Your task to perform on an android device: Open internet settings Image 0: 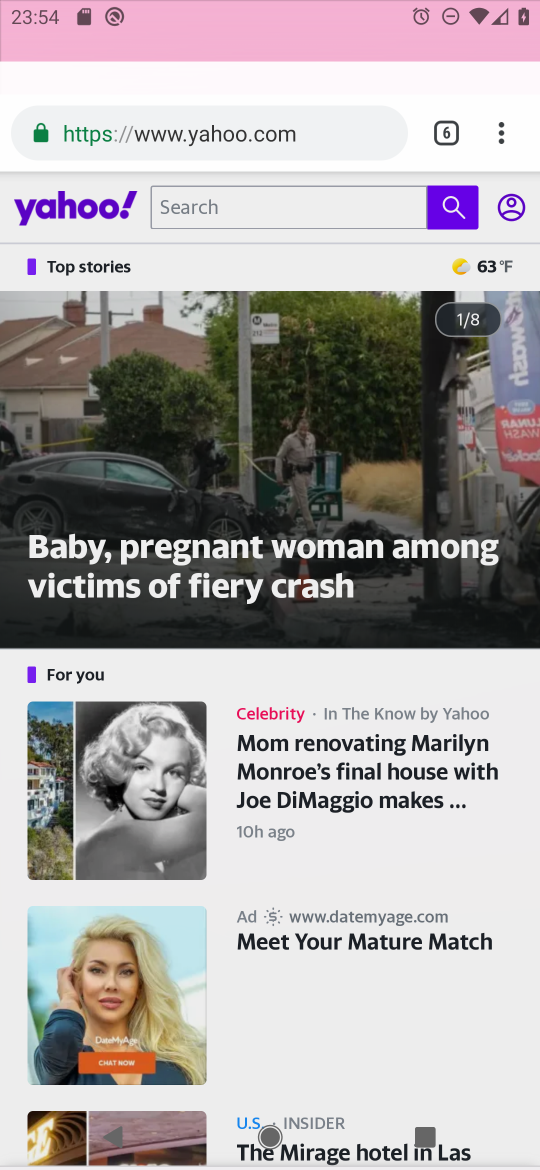
Step 0: press home button
Your task to perform on an android device: Open internet settings Image 1: 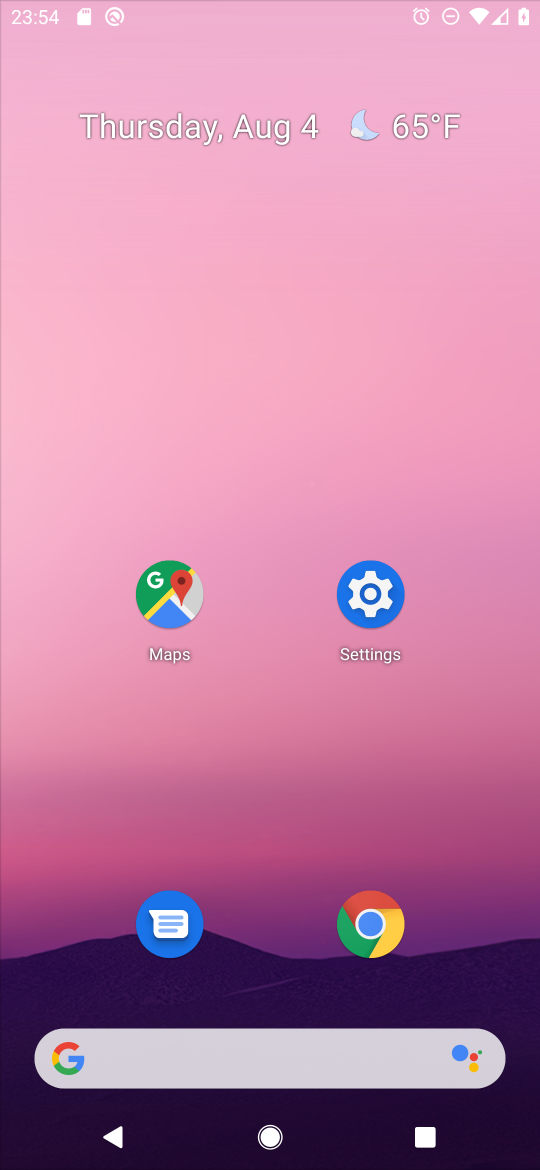
Step 1: press home button
Your task to perform on an android device: Open internet settings Image 2: 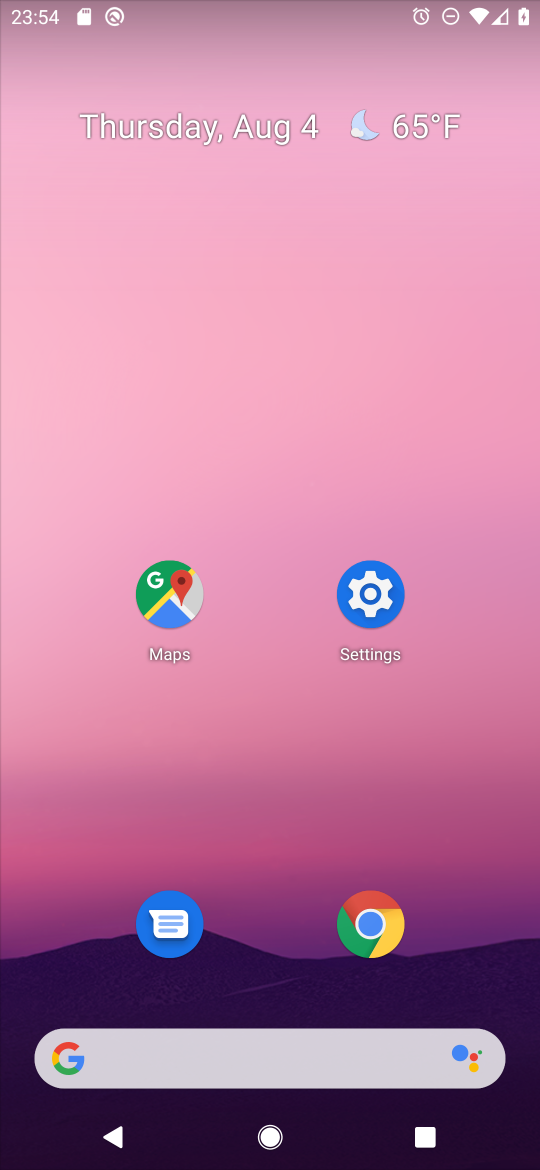
Step 2: drag from (238, 1010) to (488, 79)
Your task to perform on an android device: Open internet settings Image 3: 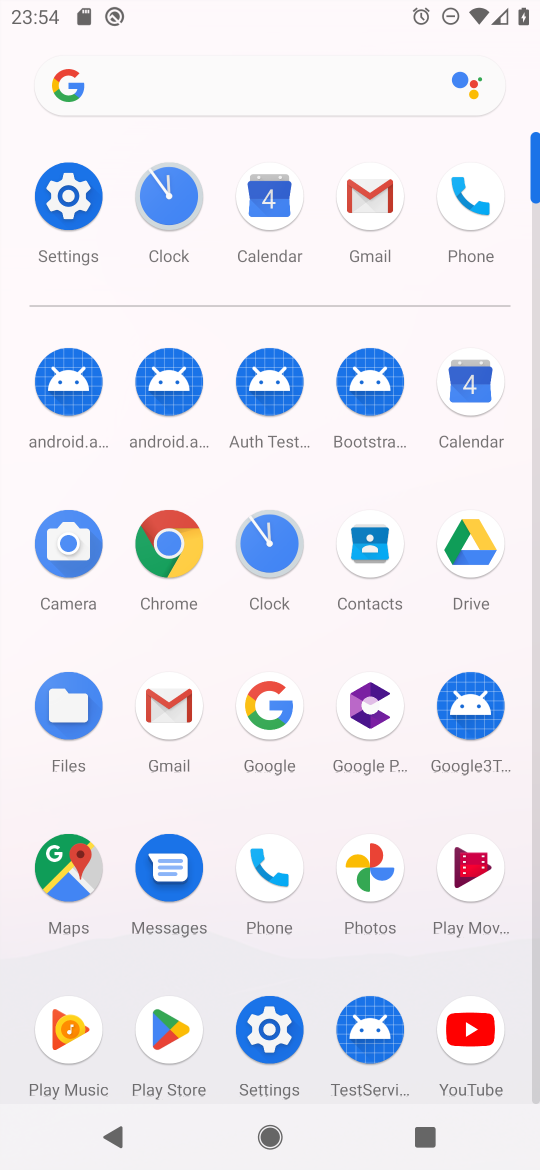
Step 3: click (271, 1042)
Your task to perform on an android device: Open internet settings Image 4: 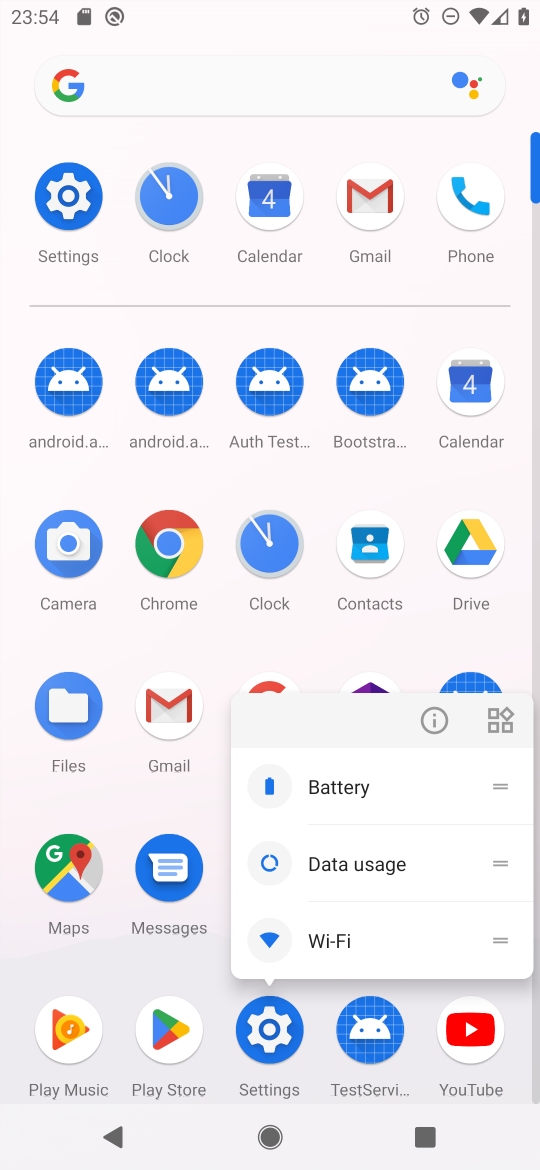
Step 4: click (263, 1042)
Your task to perform on an android device: Open internet settings Image 5: 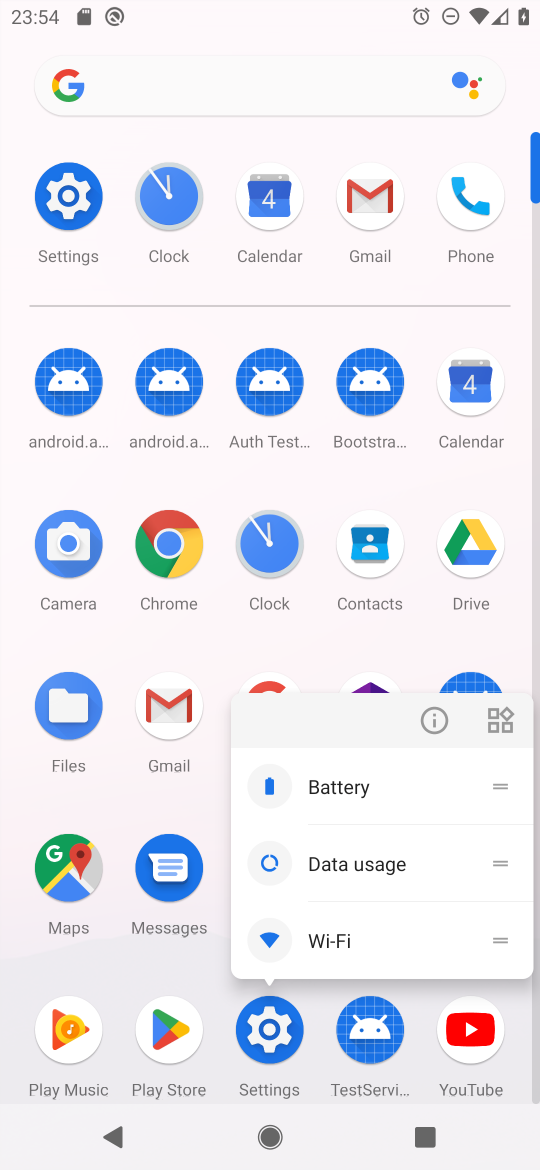
Step 5: click (270, 1034)
Your task to perform on an android device: Open internet settings Image 6: 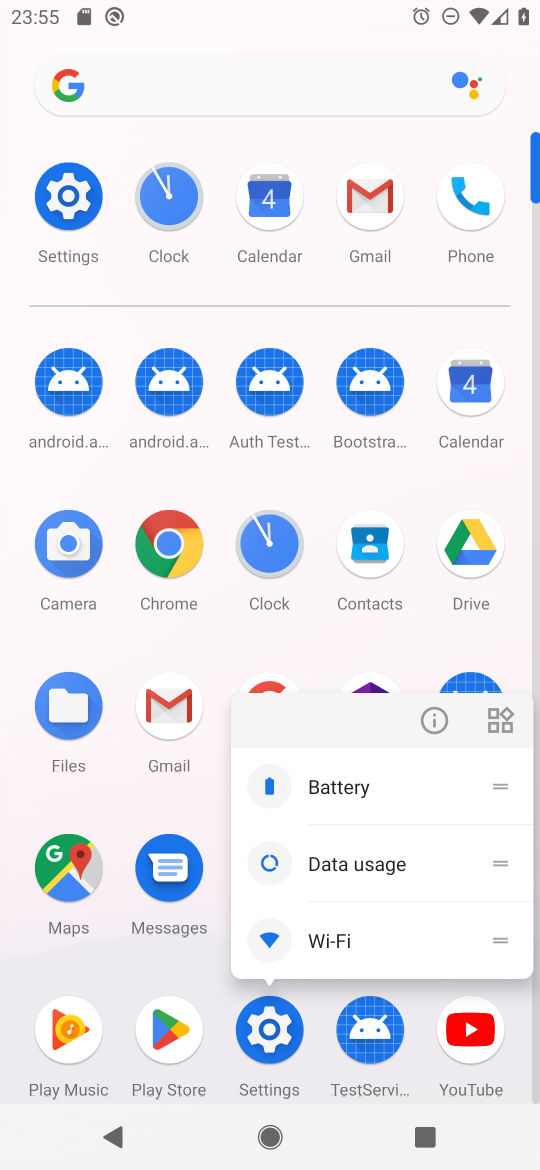
Step 6: click (265, 1020)
Your task to perform on an android device: Open internet settings Image 7: 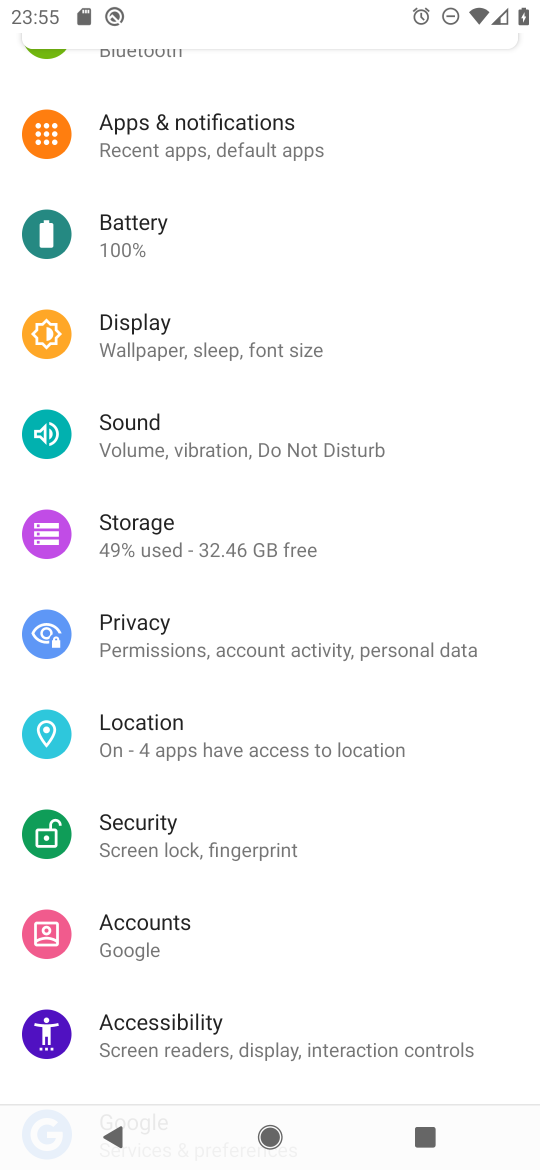
Step 7: drag from (399, 155) to (325, 911)
Your task to perform on an android device: Open internet settings Image 8: 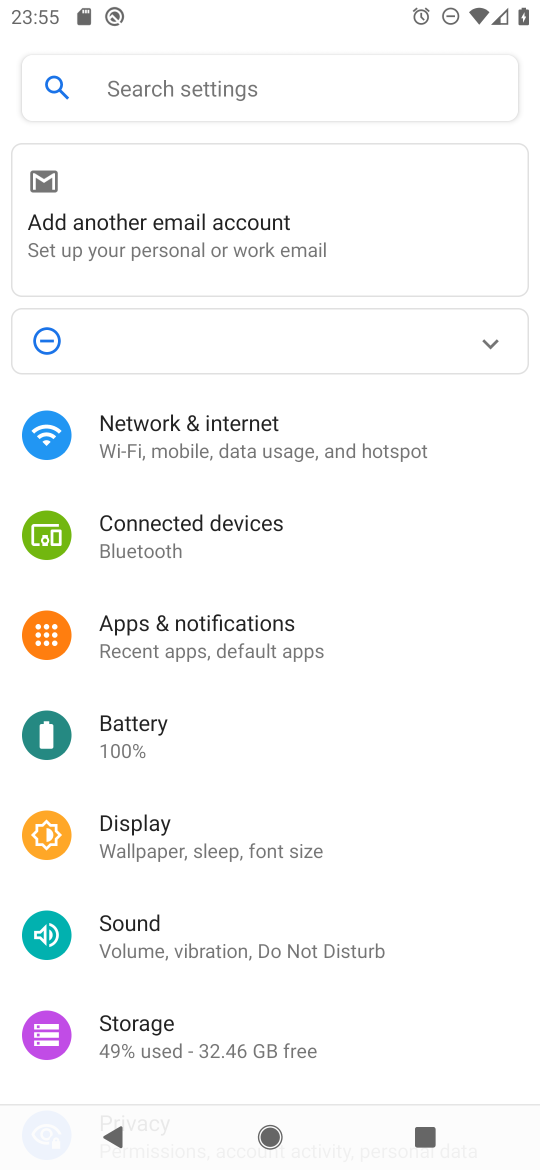
Step 8: click (194, 432)
Your task to perform on an android device: Open internet settings Image 9: 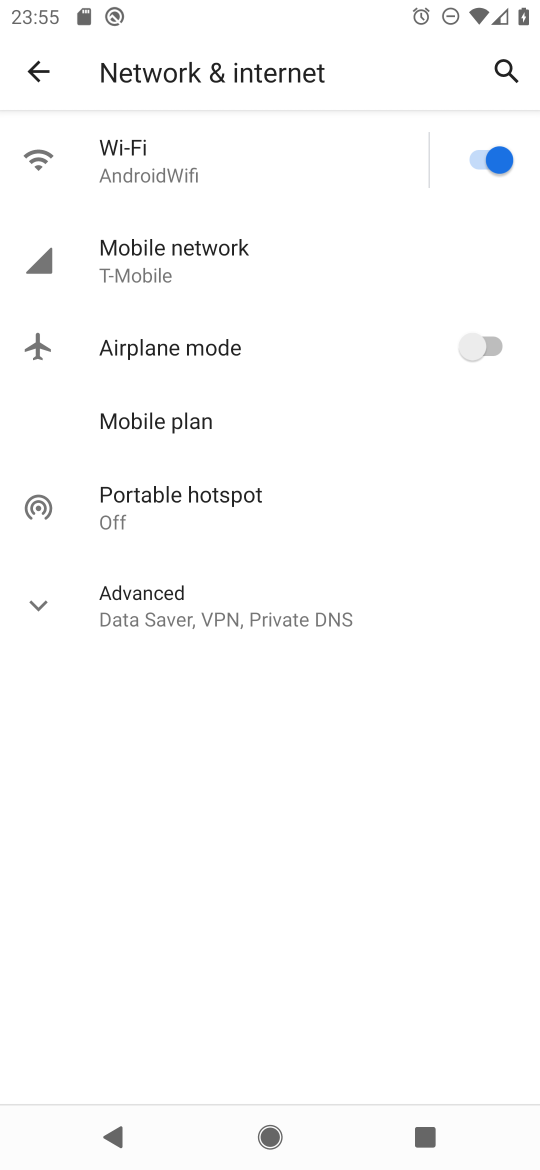
Step 9: task complete